Your task to perform on an android device: Play the last video I watched on Youtube Image 0: 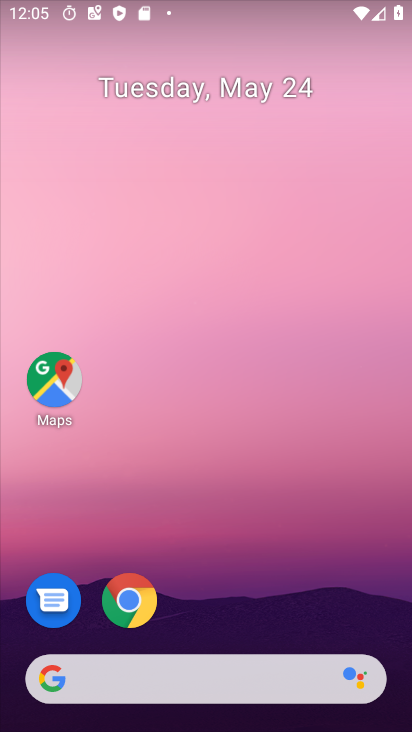
Step 0: drag from (264, 585) to (284, 139)
Your task to perform on an android device: Play the last video I watched on Youtube Image 1: 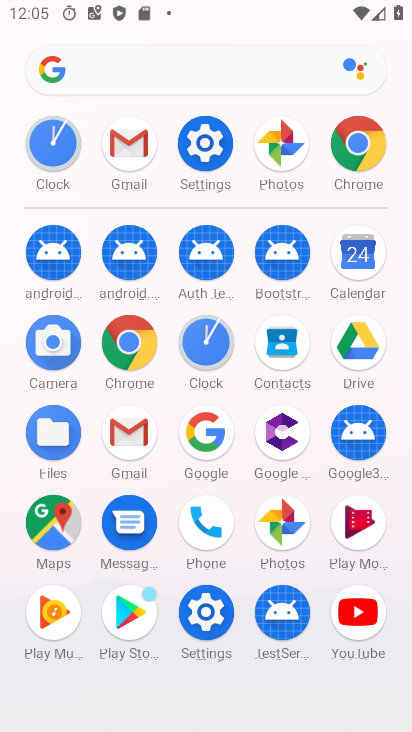
Step 1: click (351, 629)
Your task to perform on an android device: Play the last video I watched on Youtube Image 2: 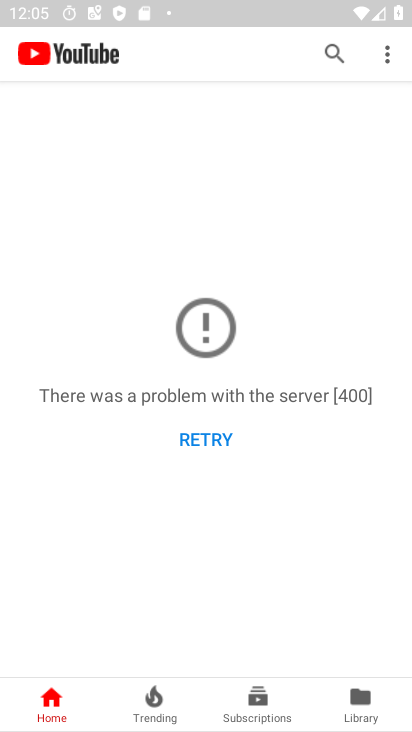
Step 2: task complete